Your task to perform on an android device: turn on javascript in the chrome app Image 0: 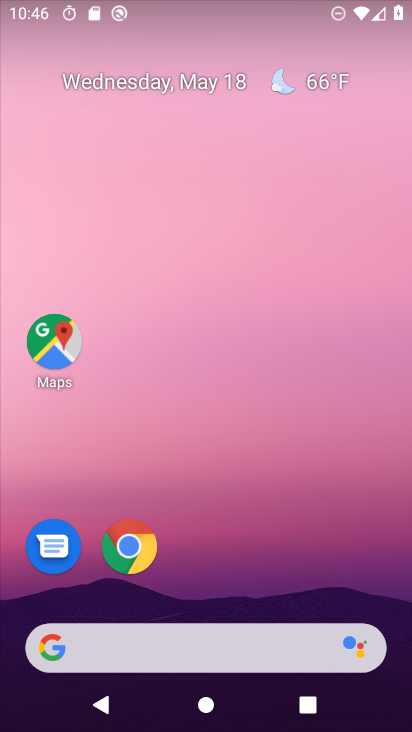
Step 0: click (131, 548)
Your task to perform on an android device: turn on javascript in the chrome app Image 1: 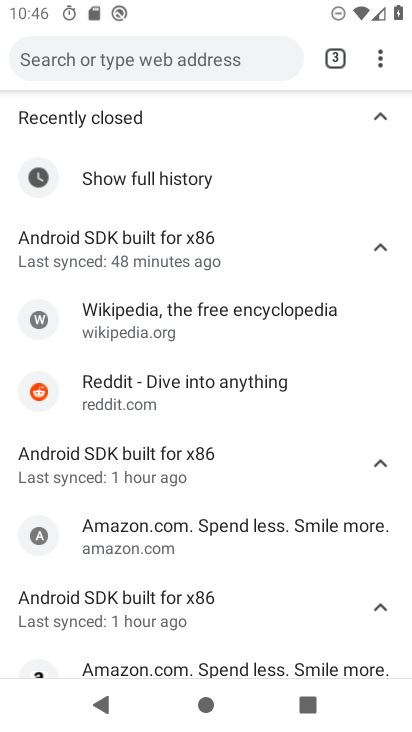
Step 1: click (393, 65)
Your task to perform on an android device: turn on javascript in the chrome app Image 2: 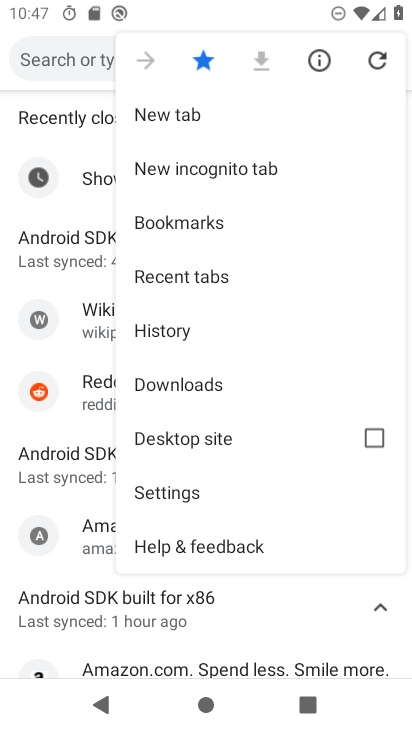
Step 2: click (196, 498)
Your task to perform on an android device: turn on javascript in the chrome app Image 3: 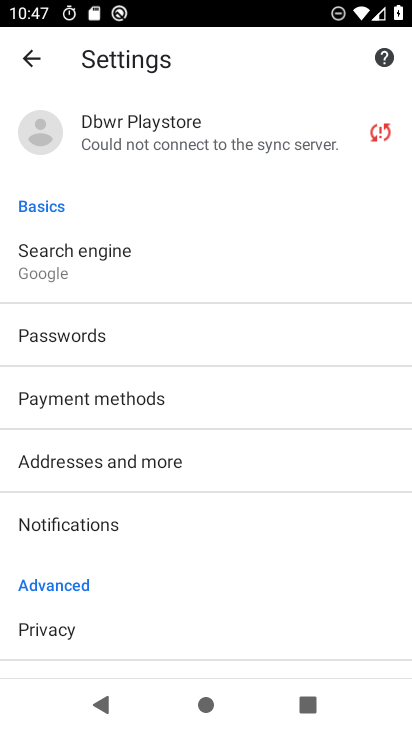
Step 3: drag from (113, 586) to (177, 262)
Your task to perform on an android device: turn on javascript in the chrome app Image 4: 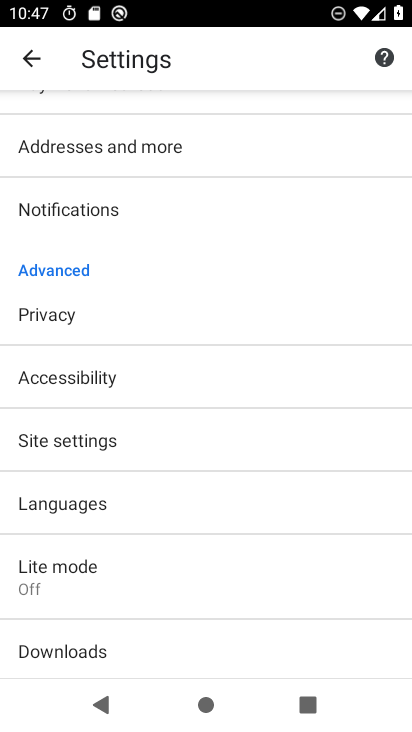
Step 4: drag from (136, 625) to (179, 183)
Your task to perform on an android device: turn on javascript in the chrome app Image 5: 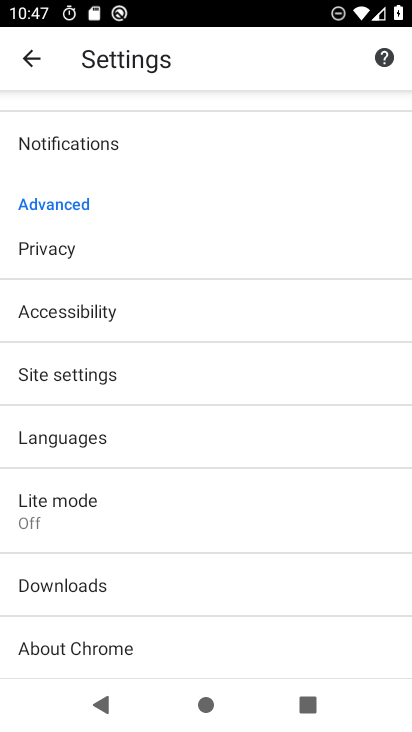
Step 5: click (176, 370)
Your task to perform on an android device: turn on javascript in the chrome app Image 6: 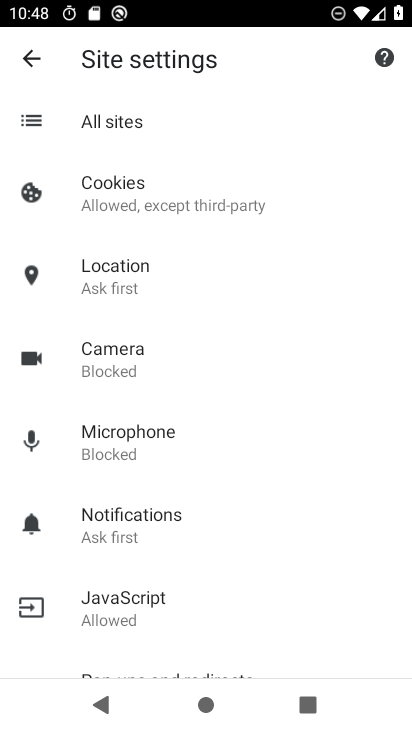
Step 6: click (108, 608)
Your task to perform on an android device: turn on javascript in the chrome app Image 7: 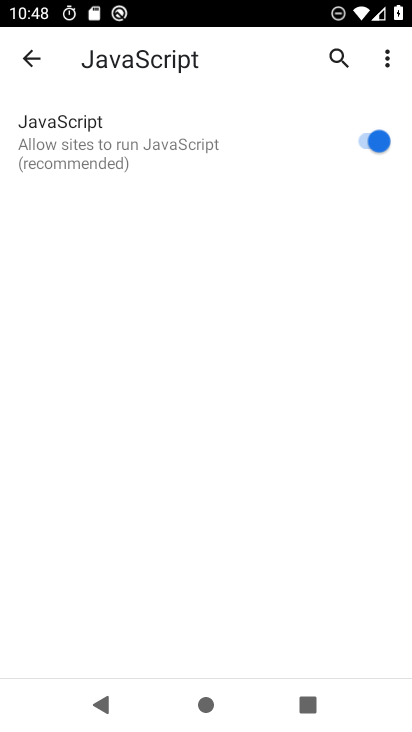
Step 7: task complete